Your task to perform on an android device: Go to Yahoo.com Image 0: 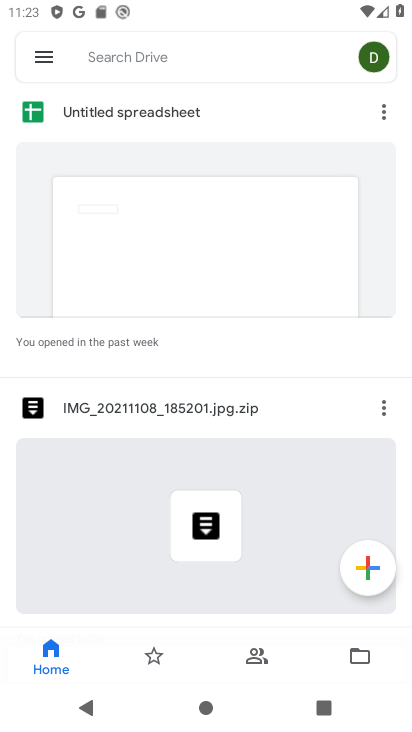
Step 0: press home button
Your task to perform on an android device: Go to Yahoo.com Image 1: 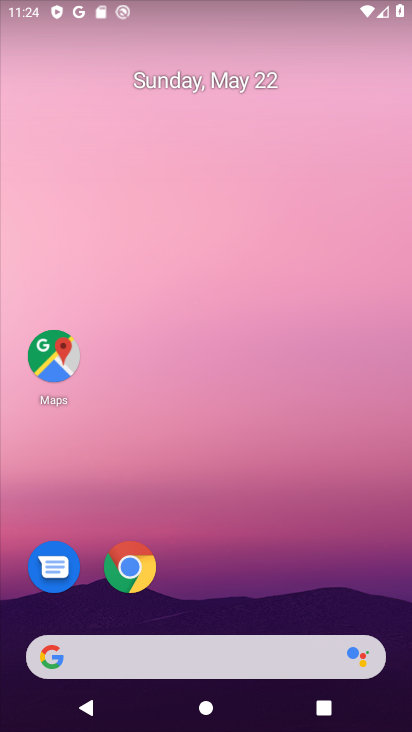
Step 1: click (143, 571)
Your task to perform on an android device: Go to Yahoo.com Image 2: 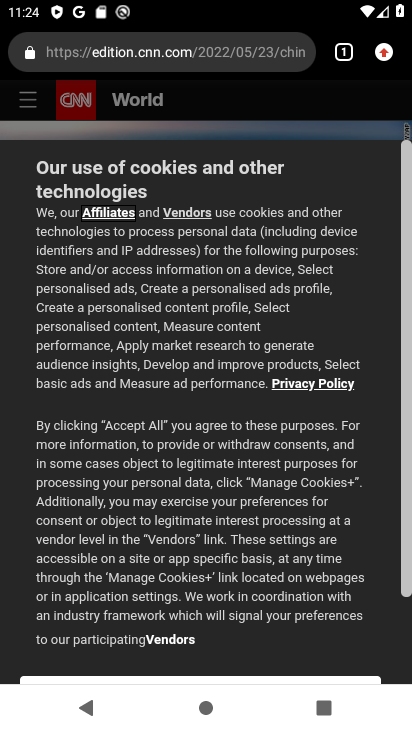
Step 2: click (341, 56)
Your task to perform on an android device: Go to Yahoo.com Image 3: 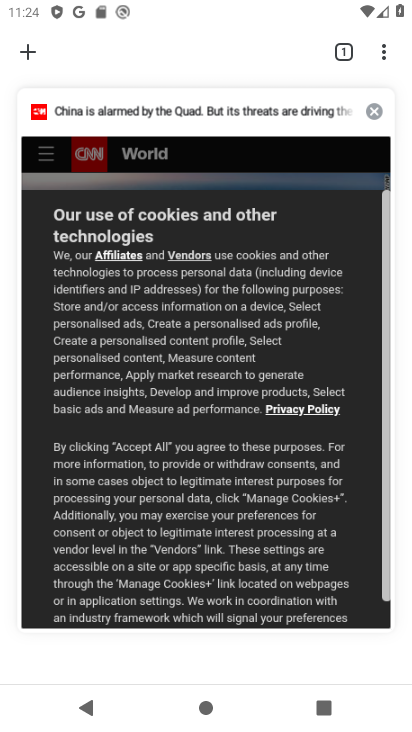
Step 3: click (28, 52)
Your task to perform on an android device: Go to Yahoo.com Image 4: 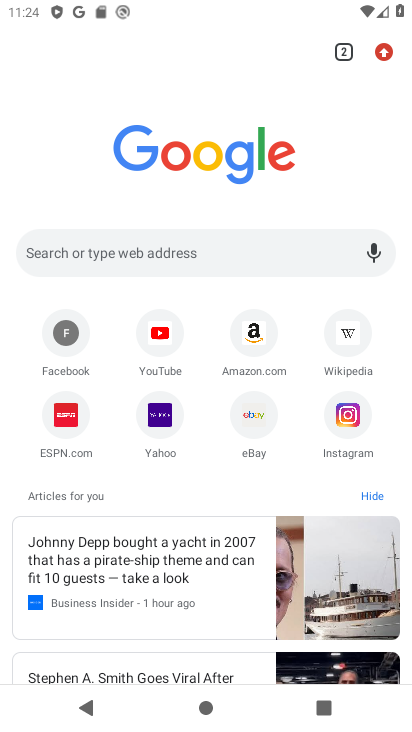
Step 4: click (154, 408)
Your task to perform on an android device: Go to Yahoo.com Image 5: 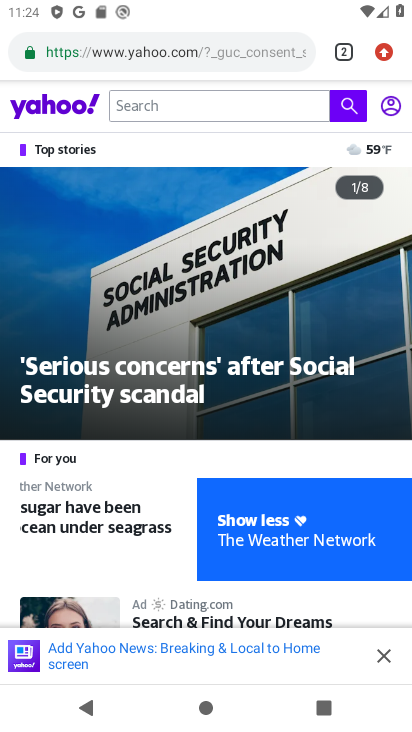
Step 5: task complete